Your task to perform on an android device: Add "logitech g910" to the cart on amazon, then select checkout. Image 0: 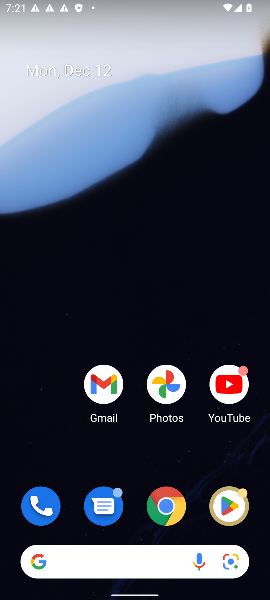
Step 0: click (109, 572)
Your task to perform on an android device: Add "logitech g910" to the cart on amazon, then select checkout. Image 1: 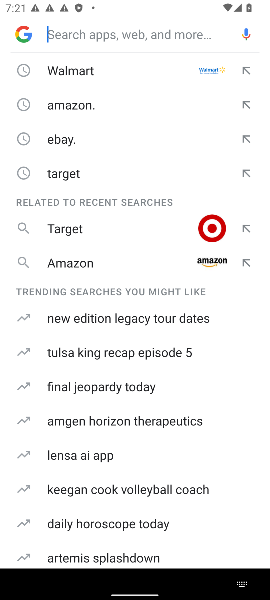
Step 1: type "amazon"
Your task to perform on an android device: Add "logitech g910" to the cart on amazon, then select checkout. Image 2: 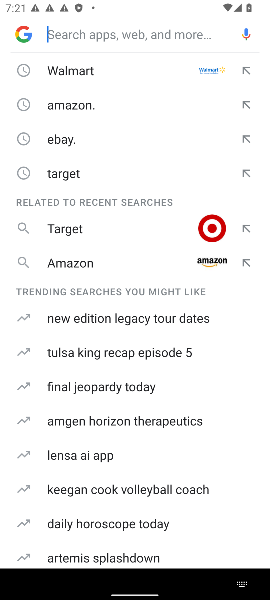
Step 2: click (98, 102)
Your task to perform on an android device: Add "logitech g910" to the cart on amazon, then select checkout. Image 3: 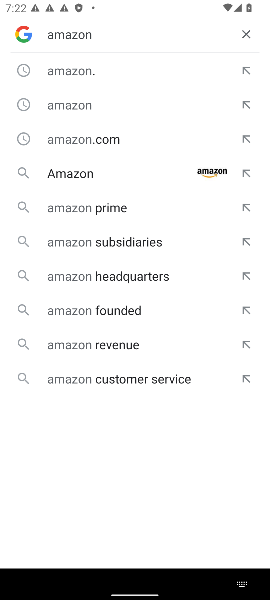
Step 3: click (94, 175)
Your task to perform on an android device: Add "logitech g910" to the cart on amazon, then select checkout. Image 4: 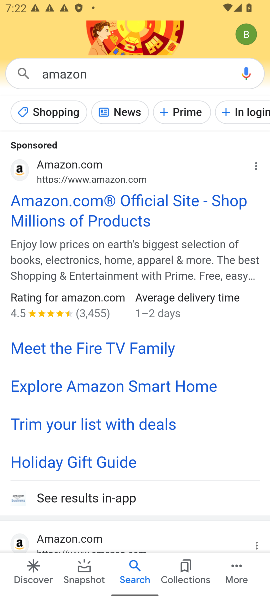
Step 4: click (94, 236)
Your task to perform on an android device: Add "logitech g910" to the cart on amazon, then select checkout. Image 5: 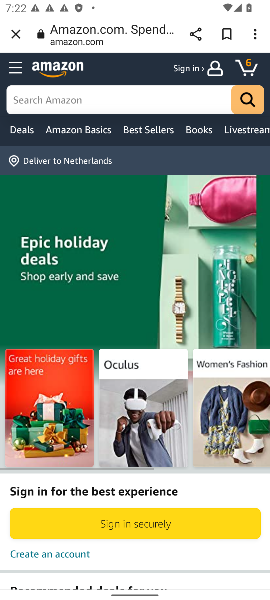
Step 5: click (149, 106)
Your task to perform on an android device: Add "logitech g910" to the cart on amazon, then select checkout. Image 6: 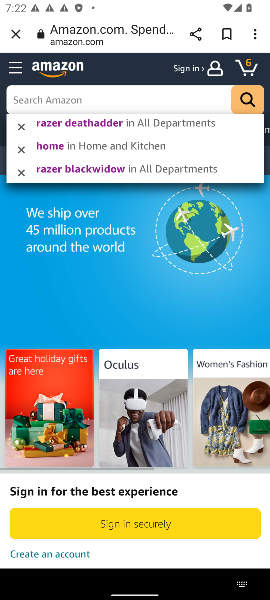
Step 6: type "logitech g910"
Your task to perform on an android device: Add "logitech g910" to the cart on amazon, then select checkout. Image 7: 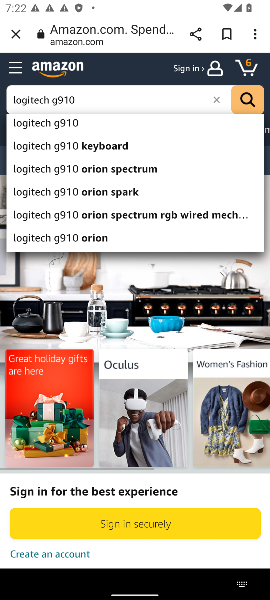
Step 7: click (245, 98)
Your task to perform on an android device: Add "logitech g910" to the cart on amazon, then select checkout. Image 8: 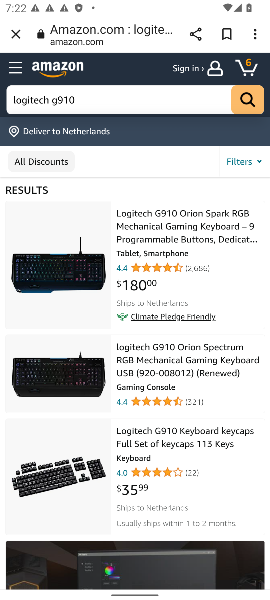
Step 8: click (141, 255)
Your task to perform on an android device: Add "logitech g910" to the cart on amazon, then select checkout. Image 9: 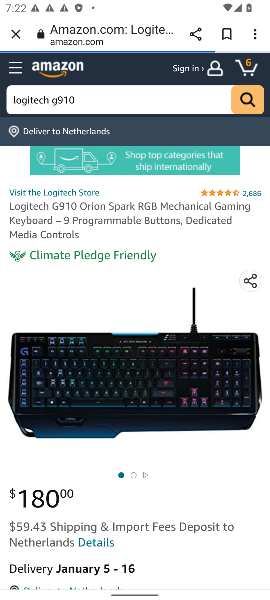
Step 9: drag from (150, 499) to (168, 200)
Your task to perform on an android device: Add "logitech g910" to the cart on amazon, then select checkout. Image 10: 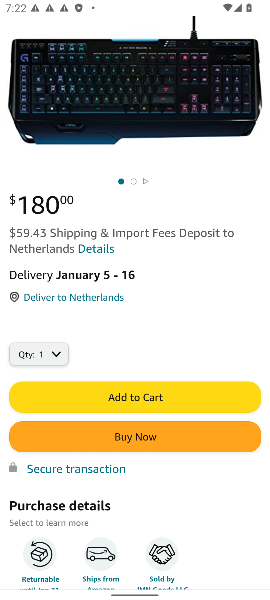
Step 10: click (196, 406)
Your task to perform on an android device: Add "logitech g910" to the cart on amazon, then select checkout. Image 11: 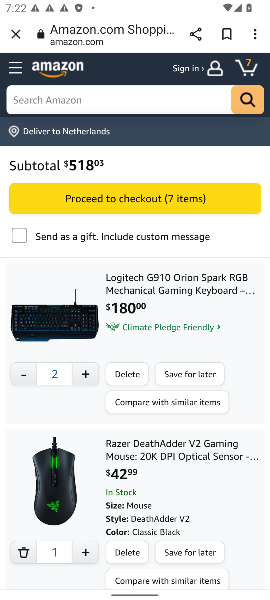
Step 11: task complete